Your task to perform on an android device: Go to location settings Image 0: 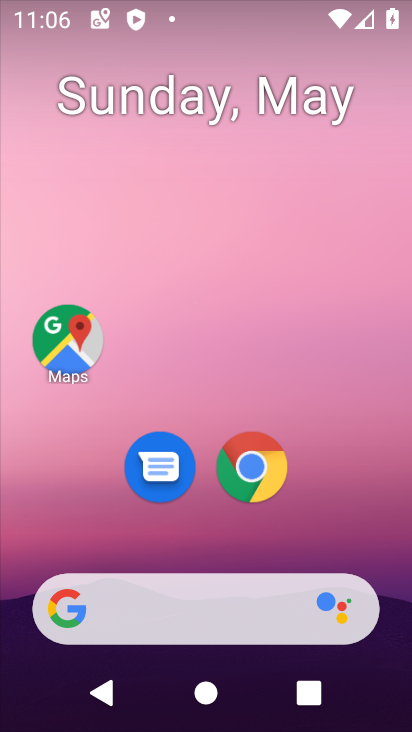
Step 0: drag from (336, 548) to (354, 19)
Your task to perform on an android device: Go to location settings Image 1: 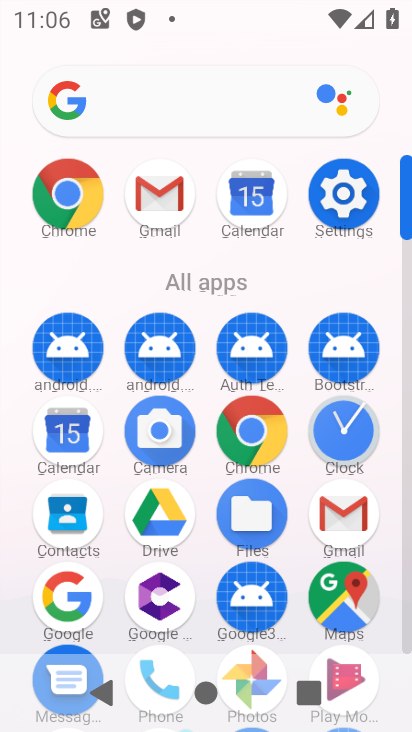
Step 1: click (335, 195)
Your task to perform on an android device: Go to location settings Image 2: 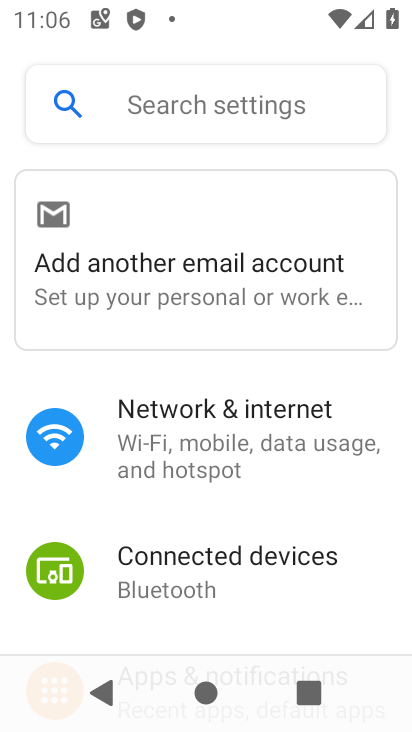
Step 2: drag from (385, 535) to (398, 91)
Your task to perform on an android device: Go to location settings Image 3: 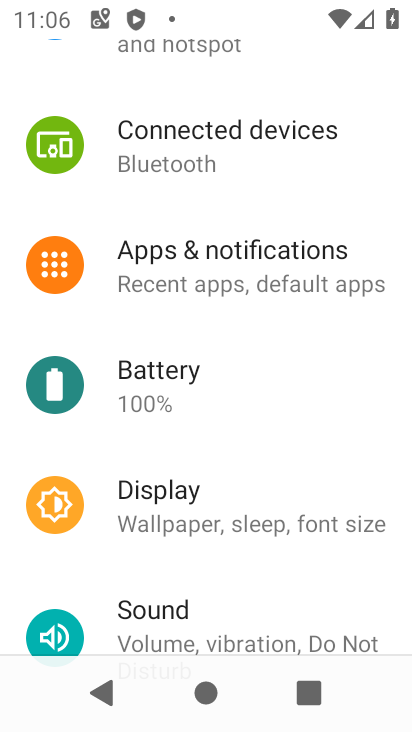
Step 3: drag from (344, 475) to (312, 161)
Your task to perform on an android device: Go to location settings Image 4: 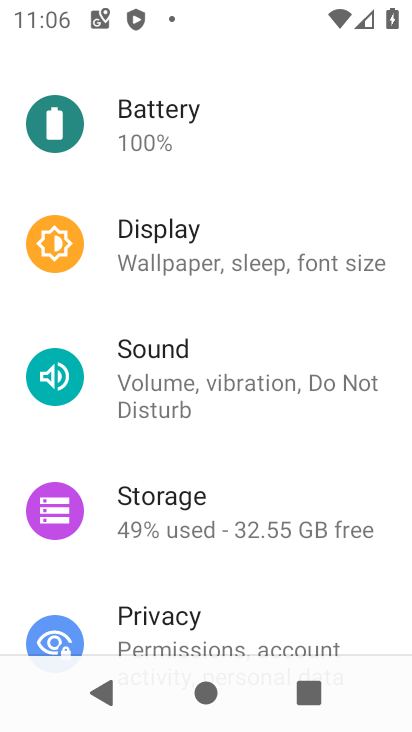
Step 4: drag from (375, 519) to (370, 165)
Your task to perform on an android device: Go to location settings Image 5: 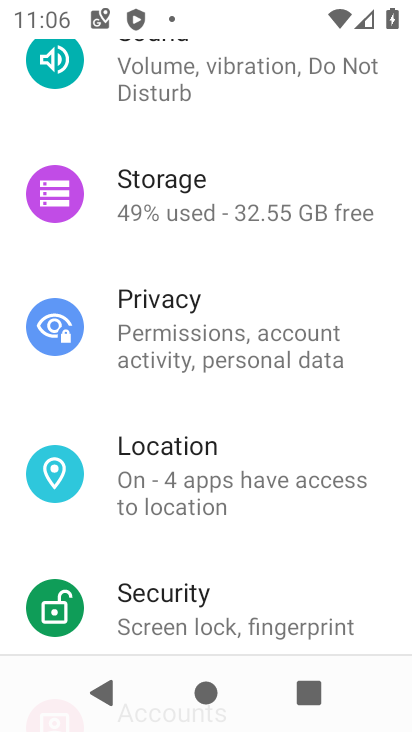
Step 5: click (170, 487)
Your task to perform on an android device: Go to location settings Image 6: 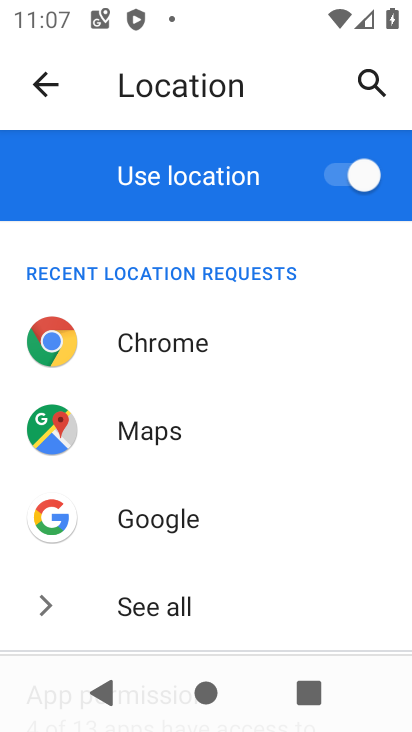
Step 6: task complete